Your task to perform on an android device: Go to internet settings Image 0: 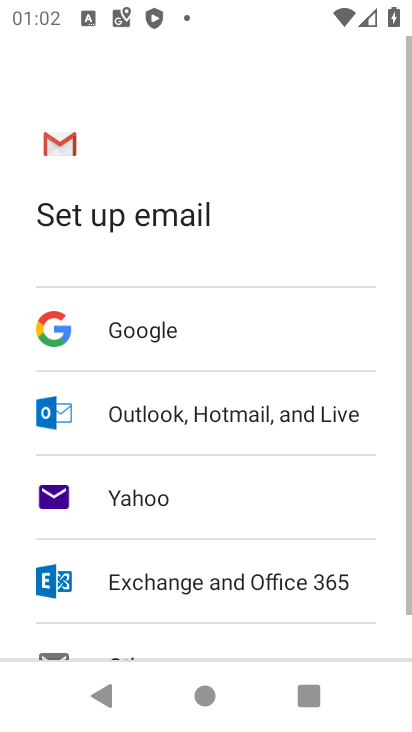
Step 0: press home button
Your task to perform on an android device: Go to internet settings Image 1: 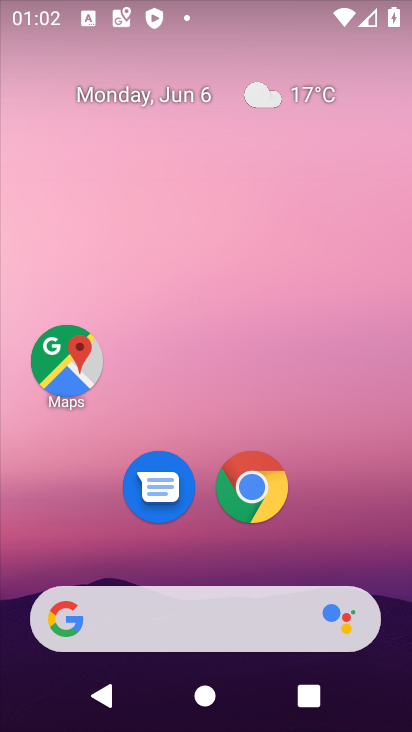
Step 1: drag from (403, 625) to (357, 60)
Your task to perform on an android device: Go to internet settings Image 2: 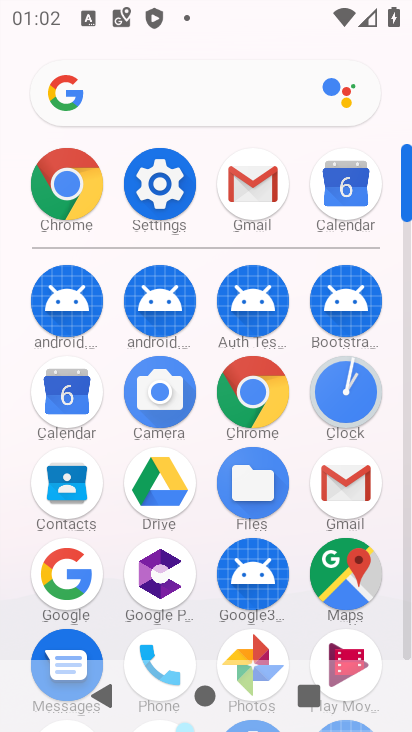
Step 2: click (406, 647)
Your task to perform on an android device: Go to internet settings Image 3: 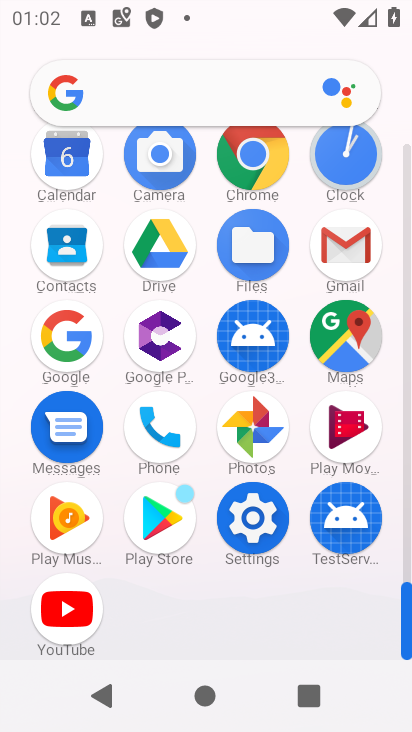
Step 3: click (255, 516)
Your task to perform on an android device: Go to internet settings Image 4: 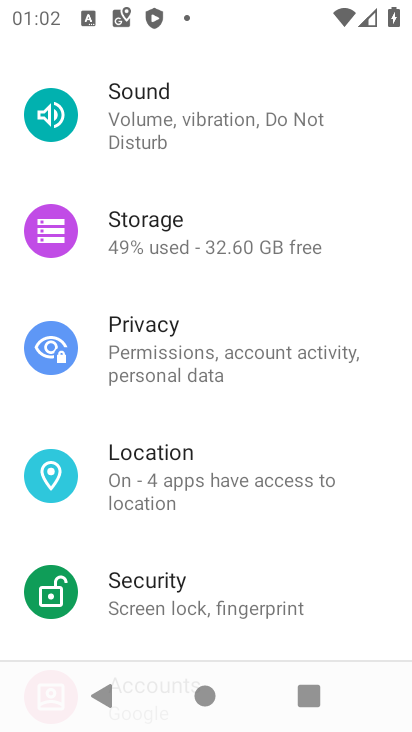
Step 4: drag from (362, 123) to (385, 468)
Your task to perform on an android device: Go to internet settings Image 5: 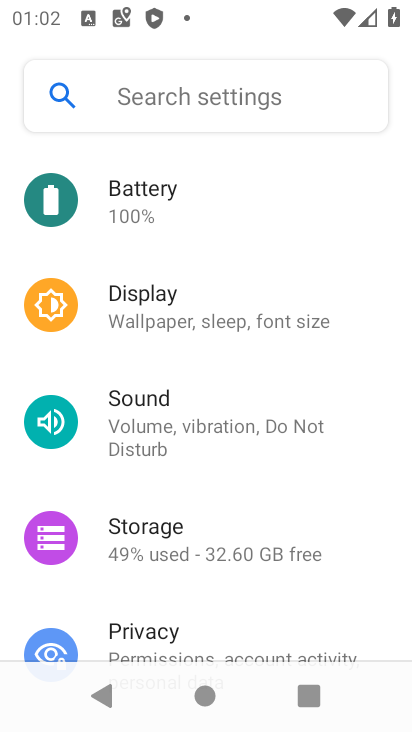
Step 5: drag from (348, 217) to (342, 565)
Your task to perform on an android device: Go to internet settings Image 6: 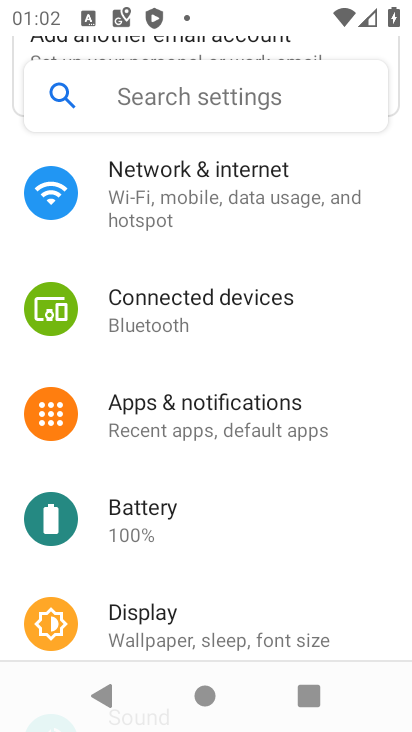
Step 6: click (137, 177)
Your task to perform on an android device: Go to internet settings Image 7: 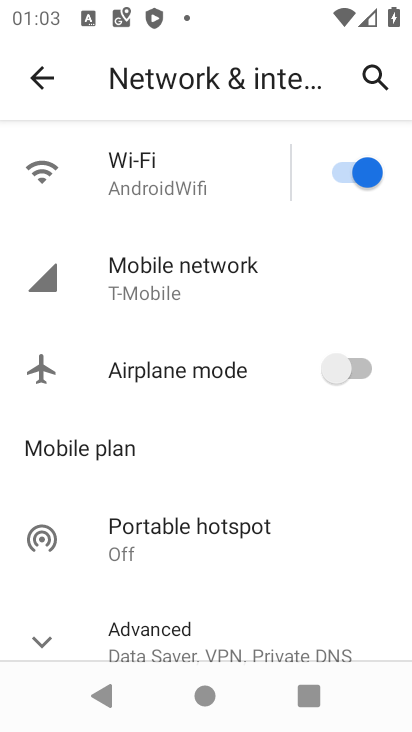
Step 7: click (152, 282)
Your task to perform on an android device: Go to internet settings Image 8: 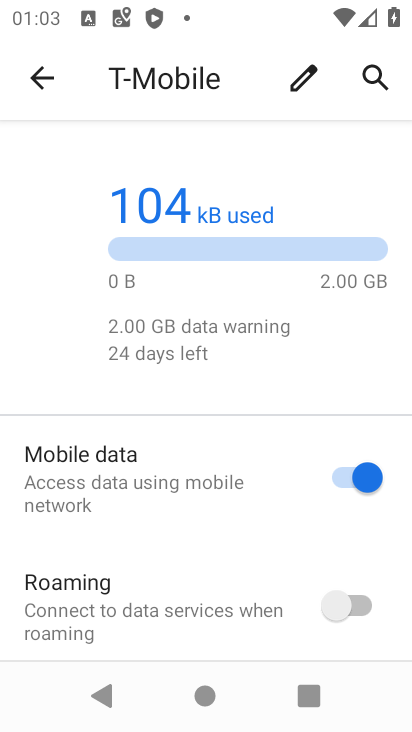
Step 8: drag from (188, 582) to (225, 151)
Your task to perform on an android device: Go to internet settings Image 9: 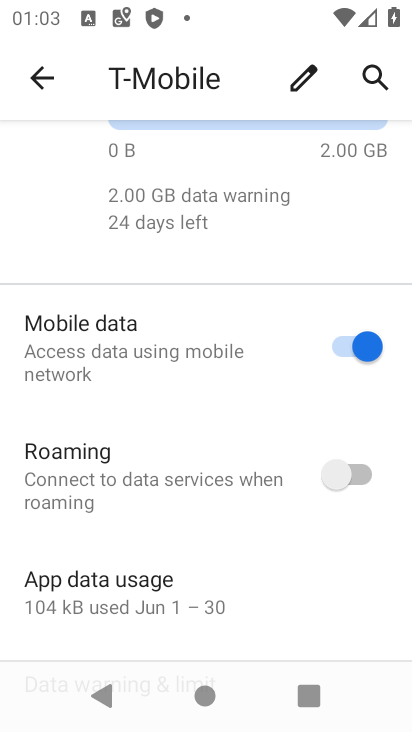
Step 9: drag from (161, 594) to (213, 190)
Your task to perform on an android device: Go to internet settings Image 10: 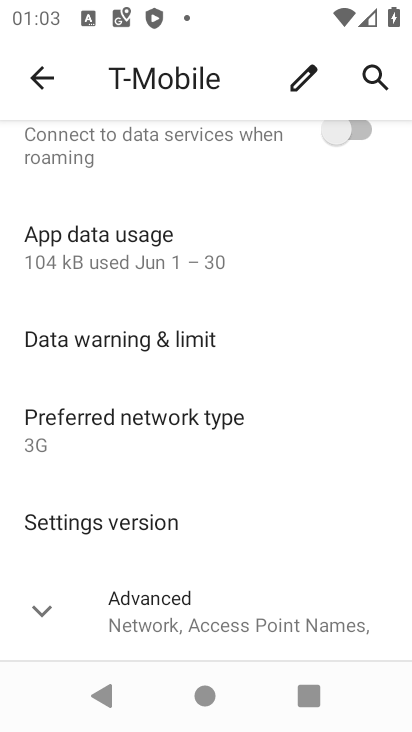
Step 10: click (37, 621)
Your task to perform on an android device: Go to internet settings Image 11: 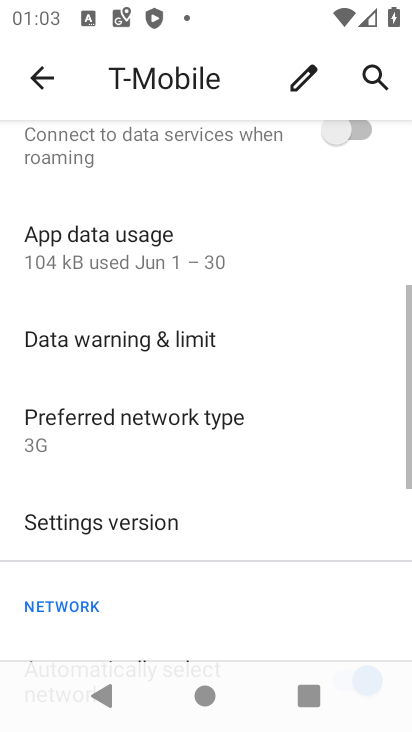
Step 11: task complete